Your task to perform on an android device: turn off location history Image 0: 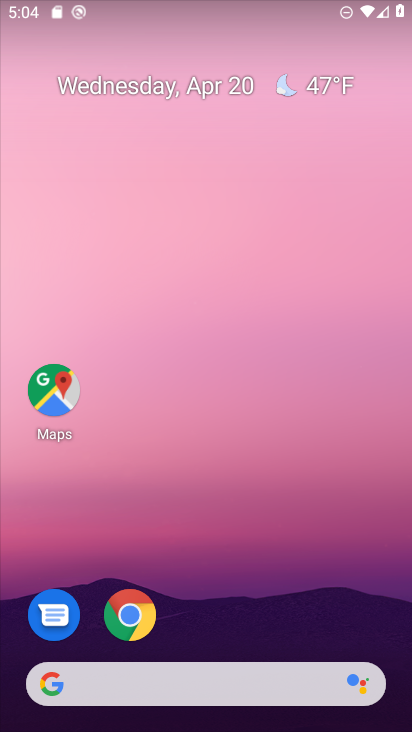
Step 0: drag from (270, 348) to (245, 68)
Your task to perform on an android device: turn off location history Image 1: 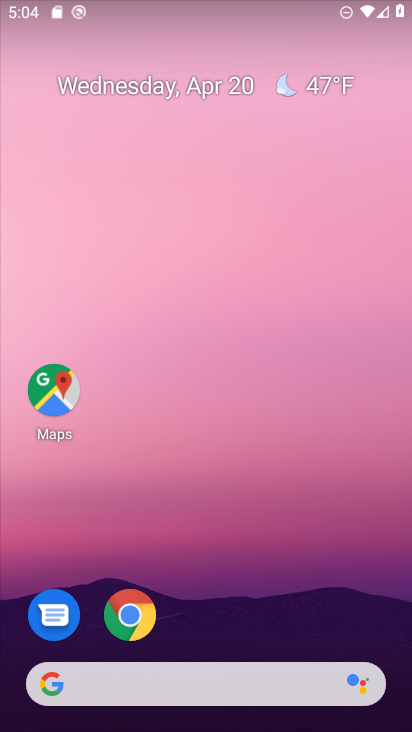
Step 1: drag from (285, 607) to (257, 97)
Your task to perform on an android device: turn off location history Image 2: 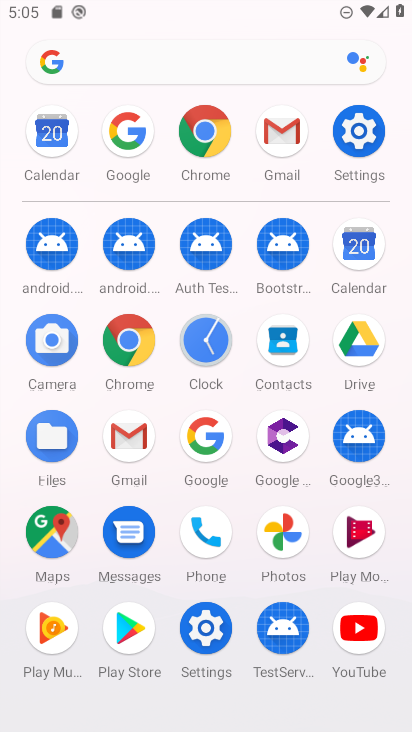
Step 2: click (353, 123)
Your task to perform on an android device: turn off location history Image 3: 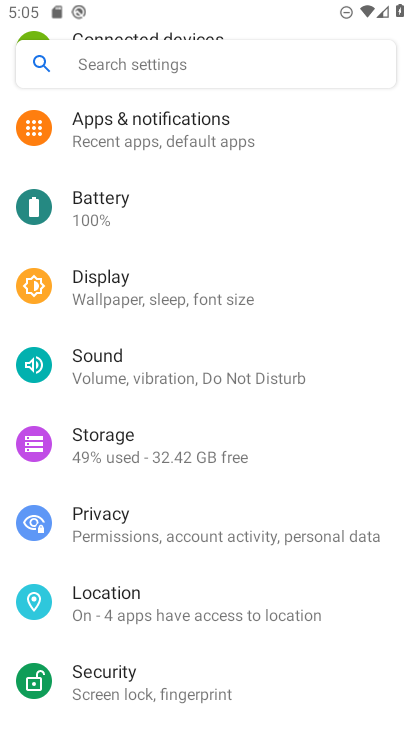
Step 3: click (193, 596)
Your task to perform on an android device: turn off location history Image 4: 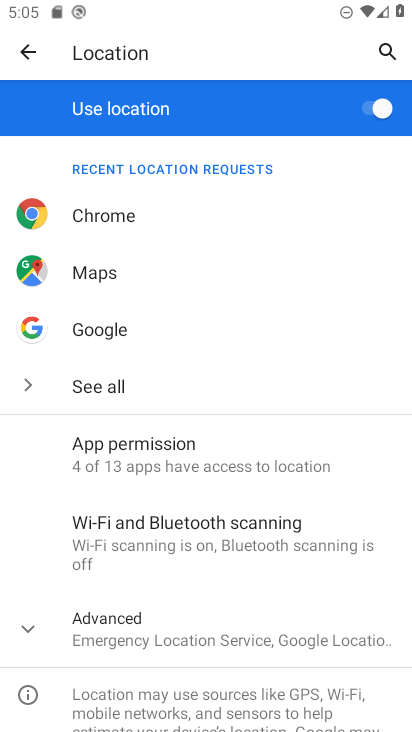
Step 4: click (368, 105)
Your task to perform on an android device: turn off location history Image 5: 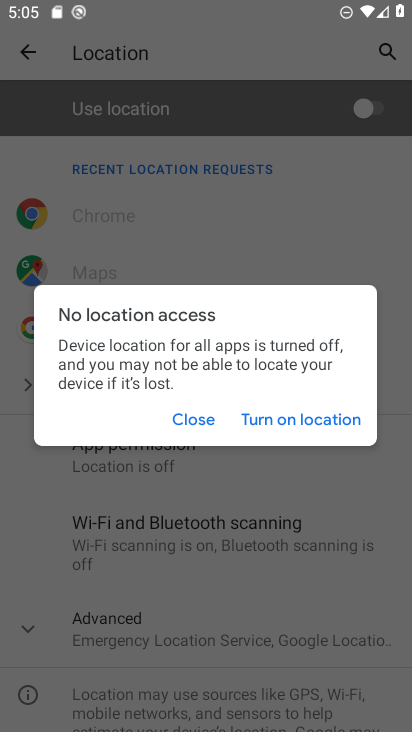
Step 5: click (200, 417)
Your task to perform on an android device: turn off location history Image 6: 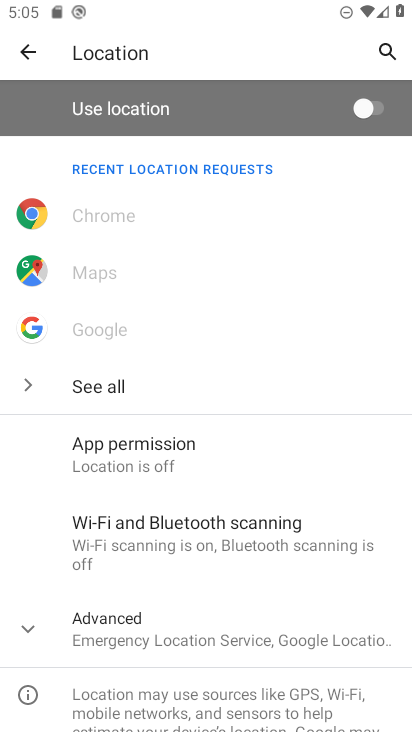
Step 6: task complete